Your task to perform on an android device: Go to eBay Image 0: 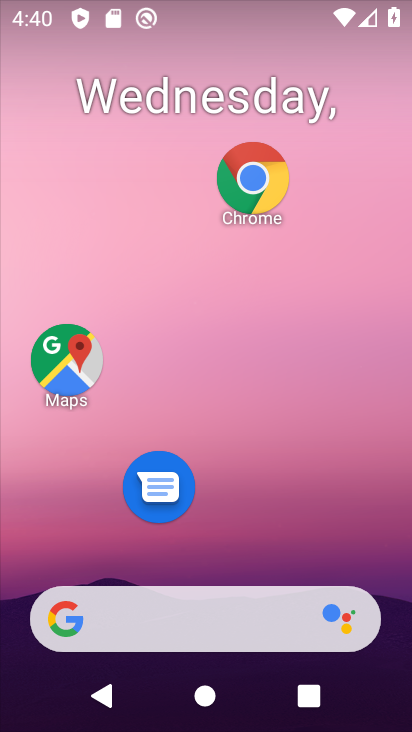
Step 0: click (249, 174)
Your task to perform on an android device: Go to eBay Image 1: 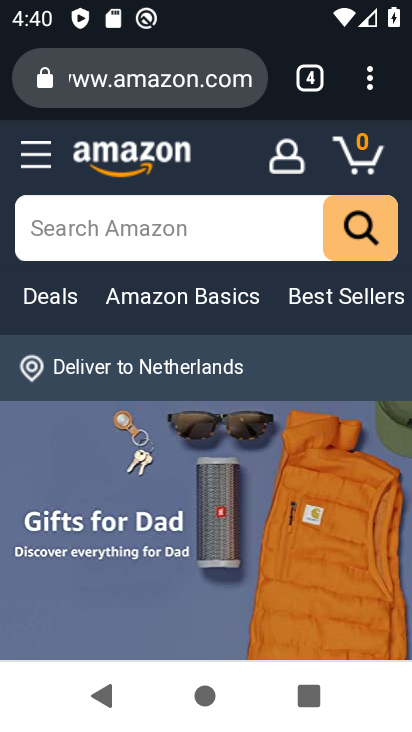
Step 1: click (187, 84)
Your task to perform on an android device: Go to eBay Image 2: 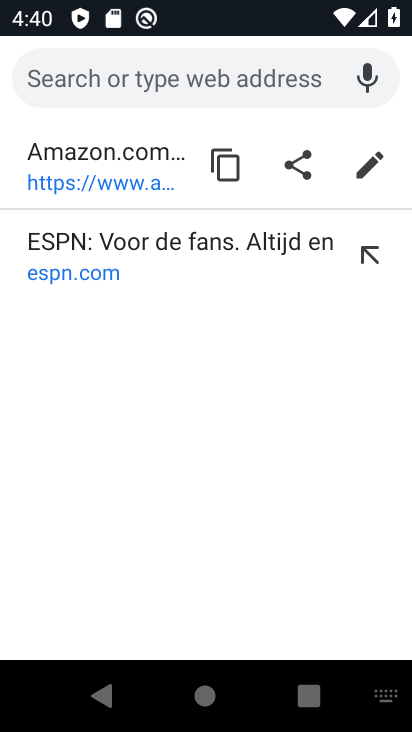
Step 2: type "ebay"
Your task to perform on an android device: Go to eBay Image 3: 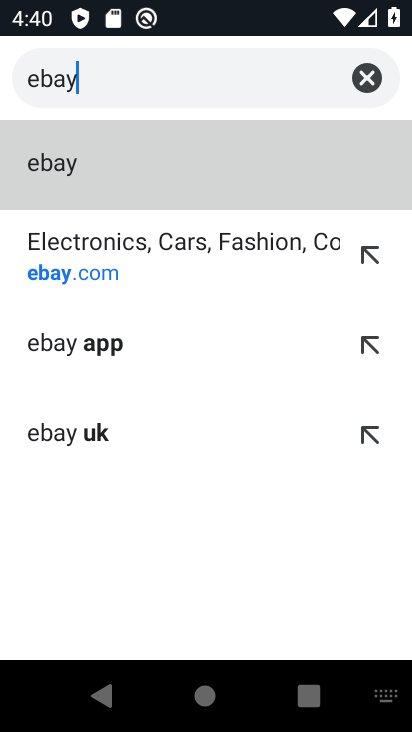
Step 3: click (73, 275)
Your task to perform on an android device: Go to eBay Image 4: 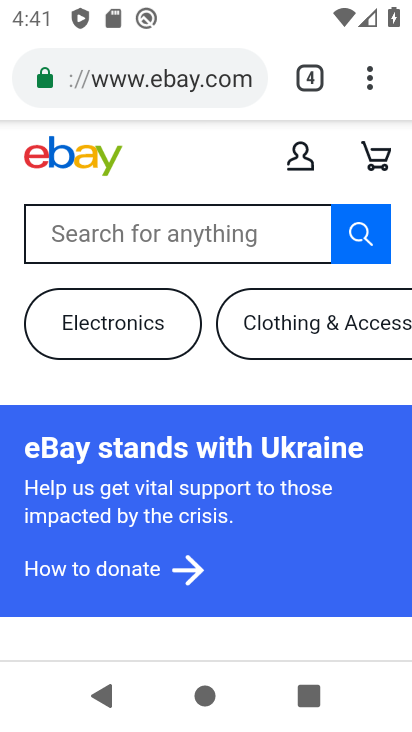
Step 4: task complete